Your task to perform on an android device: Go to sound settings Image 0: 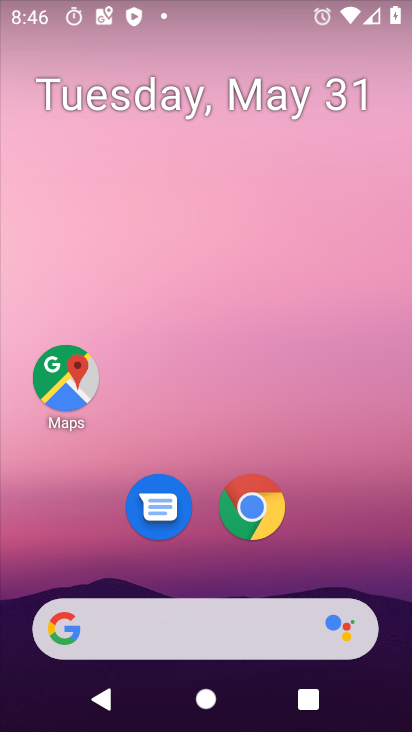
Step 0: click (404, 448)
Your task to perform on an android device: Go to sound settings Image 1: 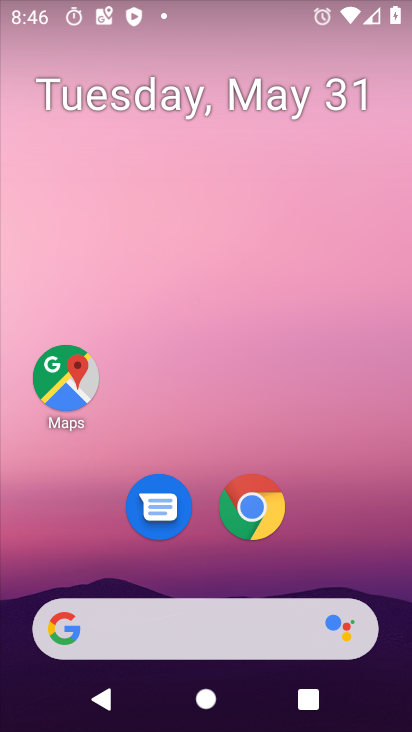
Step 1: drag from (377, 556) to (293, 3)
Your task to perform on an android device: Go to sound settings Image 2: 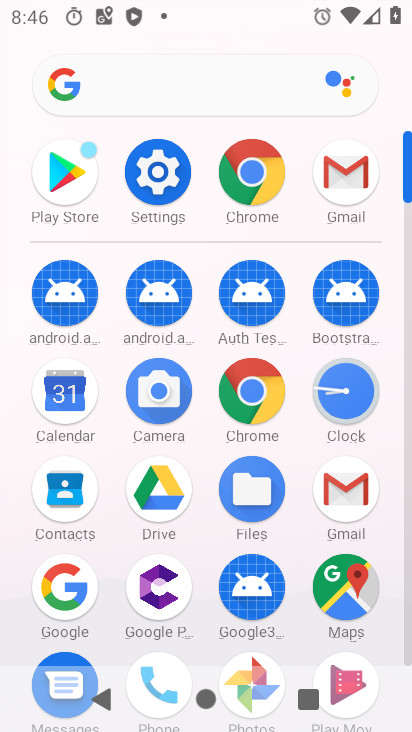
Step 2: click (157, 177)
Your task to perform on an android device: Go to sound settings Image 3: 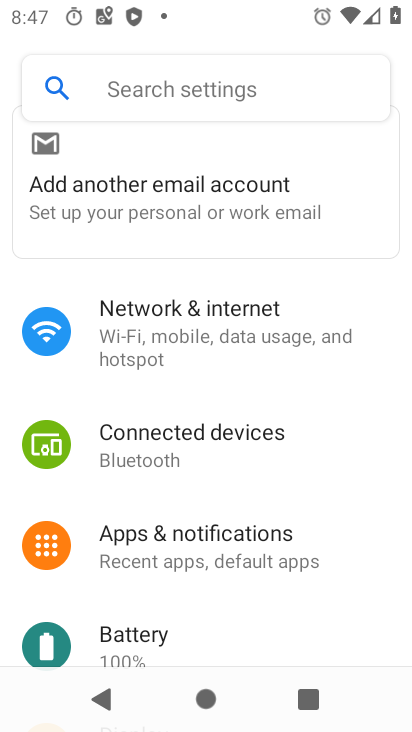
Step 3: drag from (339, 556) to (316, 166)
Your task to perform on an android device: Go to sound settings Image 4: 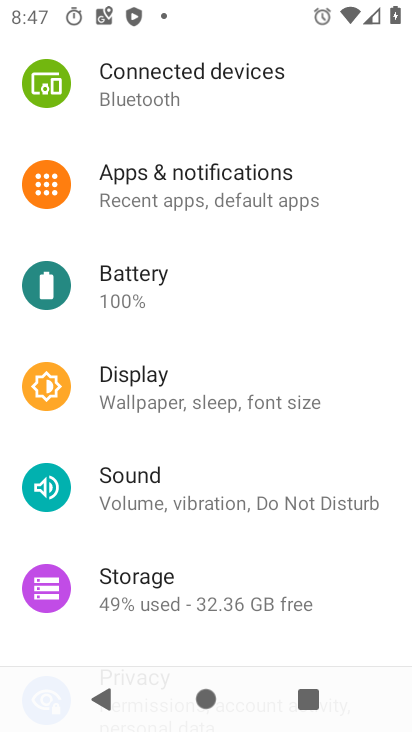
Step 4: click (123, 488)
Your task to perform on an android device: Go to sound settings Image 5: 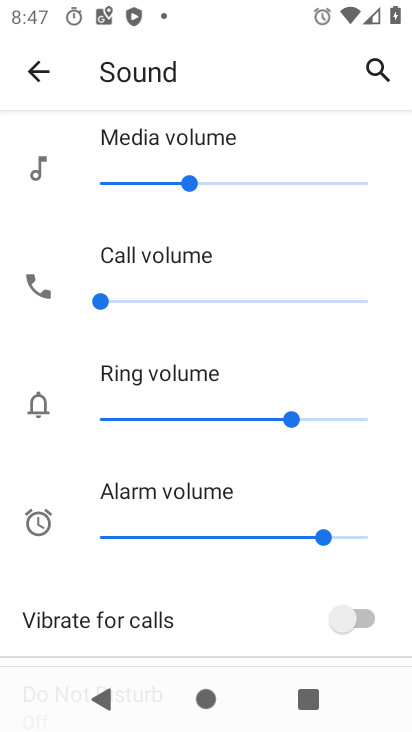
Step 5: task complete